Your task to perform on an android device: open the mobile data screen to see how much data has been used Image 0: 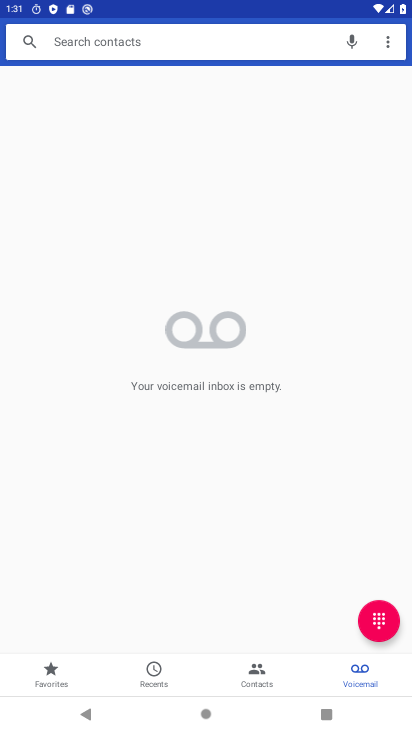
Step 0: click (26, 296)
Your task to perform on an android device: open the mobile data screen to see how much data has been used Image 1: 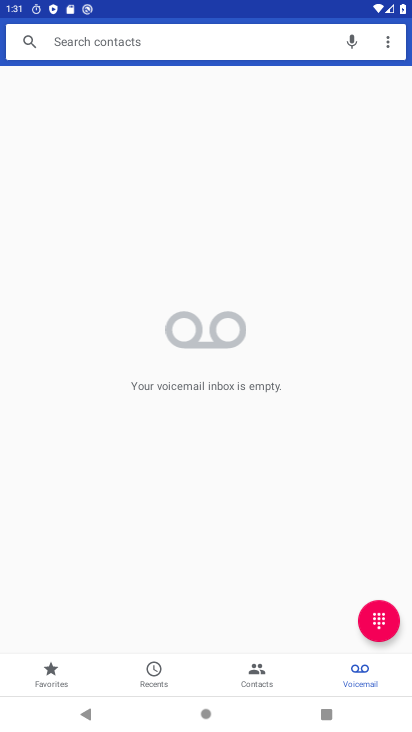
Step 1: drag from (291, 427) to (292, 362)
Your task to perform on an android device: open the mobile data screen to see how much data has been used Image 2: 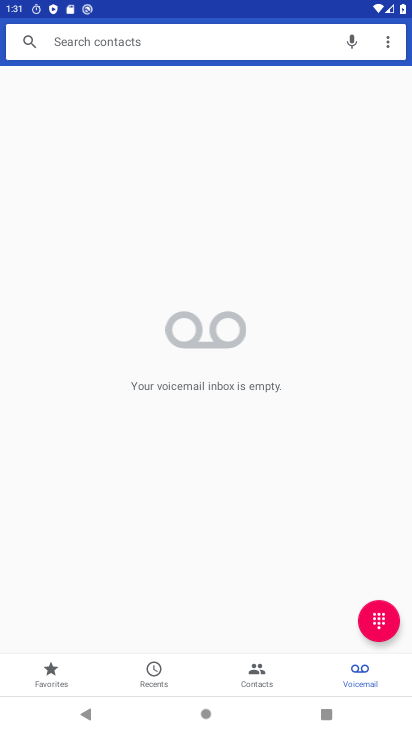
Step 2: press home button
Your task to perform on an android device: open the mobile data screen to see how much data has been used Image 3: 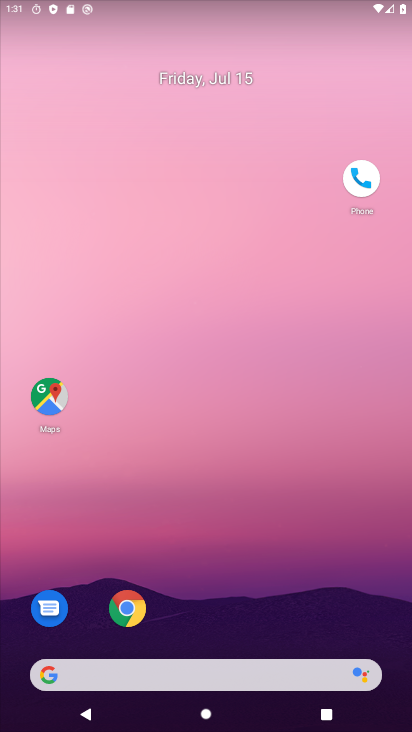
Step 3: drag from (229, 652) to (275, 218)
Your task to perform on an android device: open the mobile data screen to see how much data has been used Image 4: 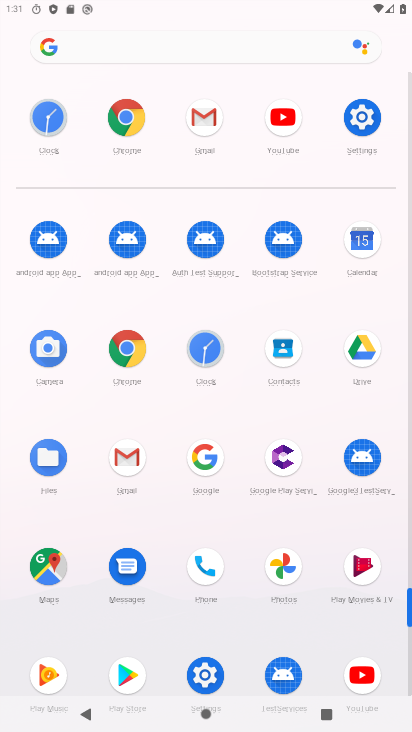
Step 4: click (369, 117)
Your task to perform on an android device: open the mobile data screen to see how much data has been used Image 5: 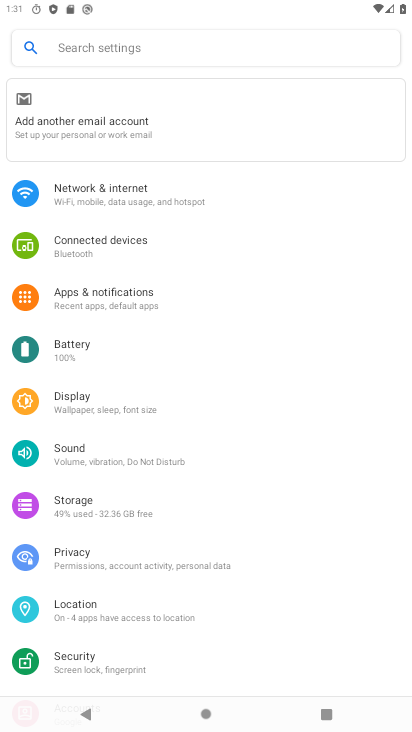
Step 5: click (94, 208)
Your task to perform on an android device: open the mobile data screen to see how much data has been used Image 6: 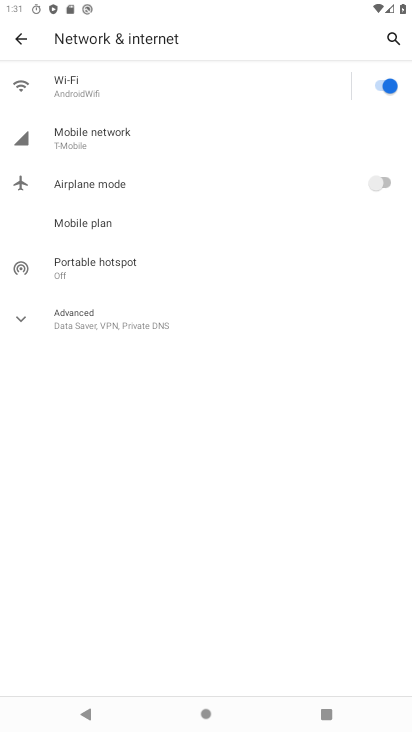
Step 6: click (158, 137)
Your task to perform on an android device: open the mobile data screen to see how much data has been used Image 7: 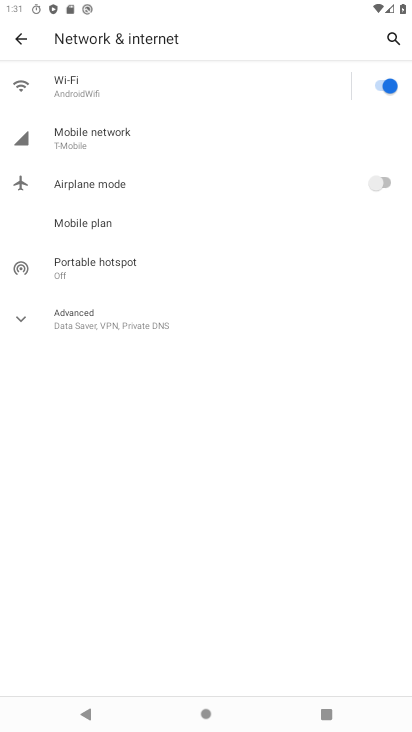
Step 7: task complete